Your task to perform on an android device: Open maps Image 0: 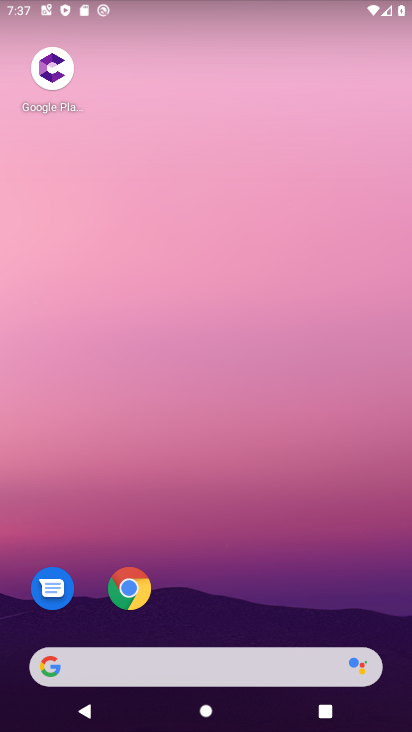
Step 0: drag from (236, 580) to (347, 125)
Your task to perform on an android device: Open maps Image 1: 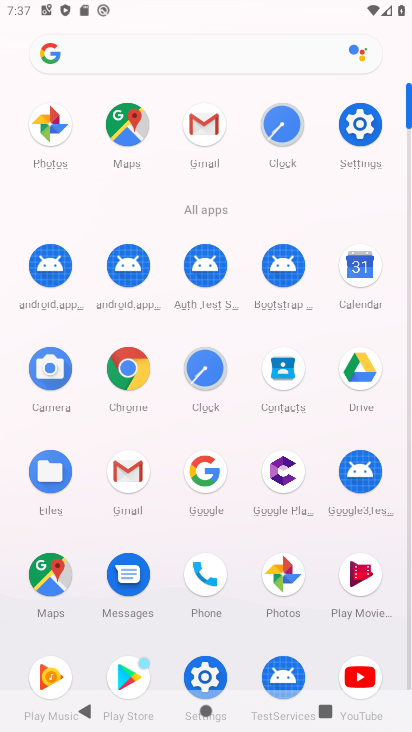
Step 1: click (52, 584)
Your task to perform on an android device: Open maps Image 2: 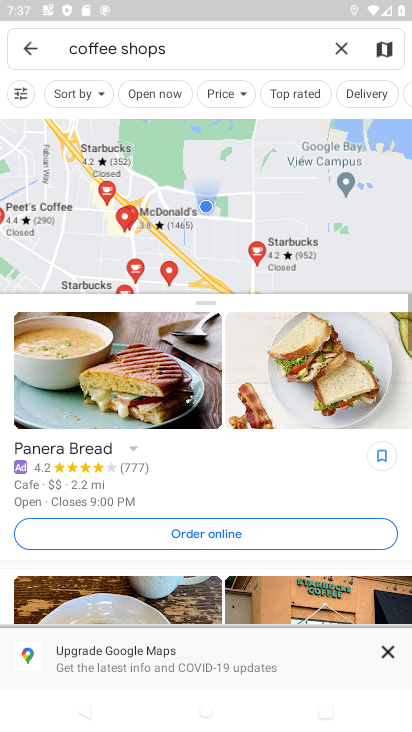
Step 2: click (20, 44)
Your task to perform on an android device: Open maps Image 3: 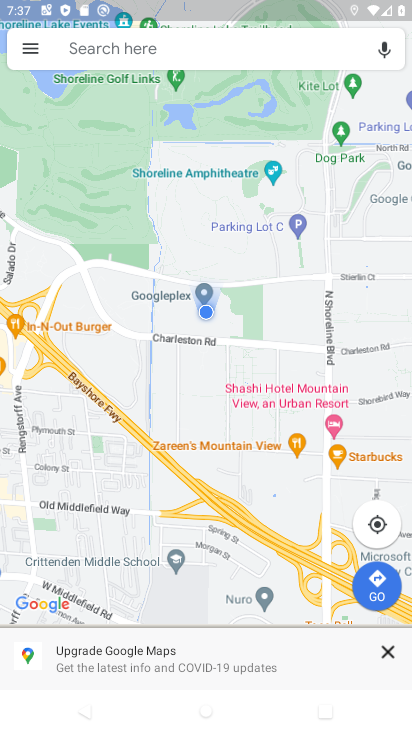
Step 3: task complete